Your task to perform on an android device: Open accessibility settings Image 0: 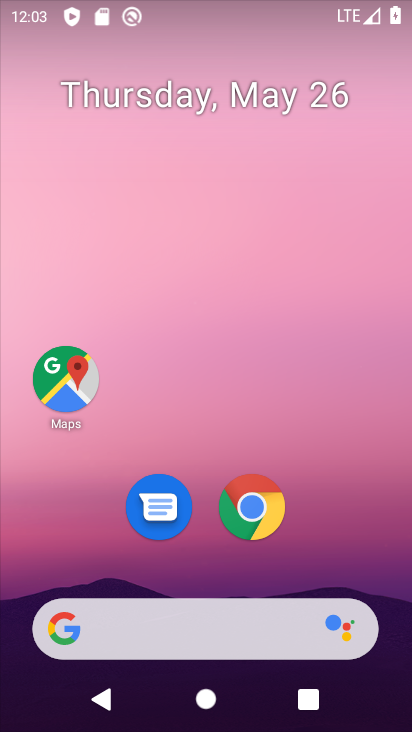
Step 0: drag from (225, 578) to (274, 185)
Your task to perform on an android device: Open accessibility settings Image 1: 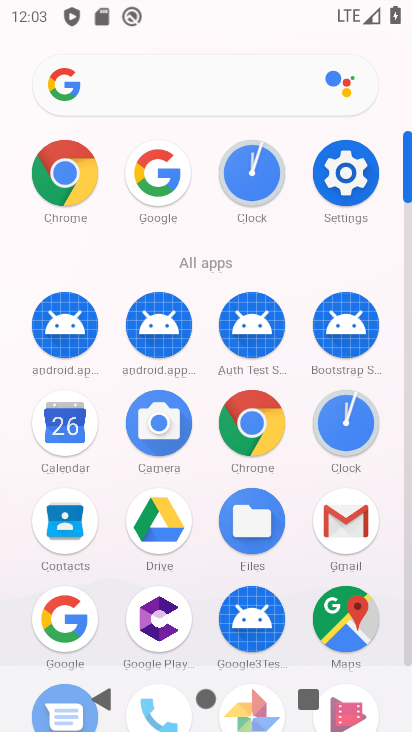
Step 1: click (353, 178)
Your task to perform on an android device: Open accessibility settings Image 2: 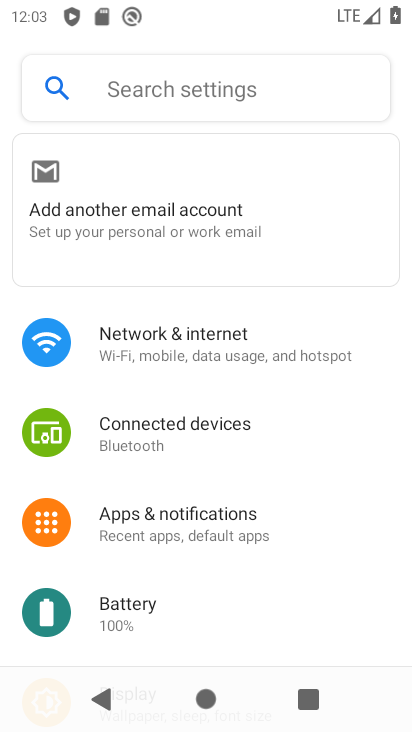
Step 2: drag from (157, 634) to (219, 326)
Your task to perform on an android device: Open accessibility settings Image 3: 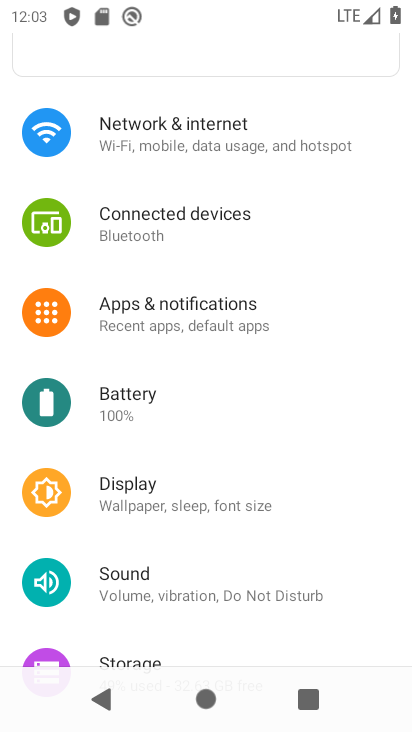
Step 3: drag from (209, 562) to (239, 211)
Your task to perform on an android device: Open accessibility settings Image 4: 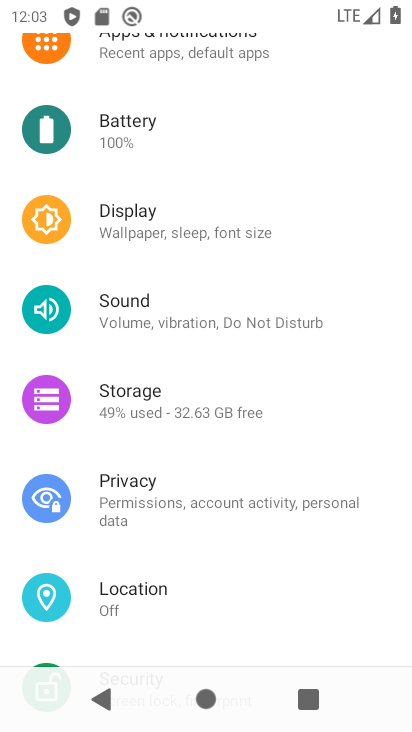
Step 4: drag from (229, 548) to (264, 154)
Your task to perform on an android device: Open accessibility settings Image 5: 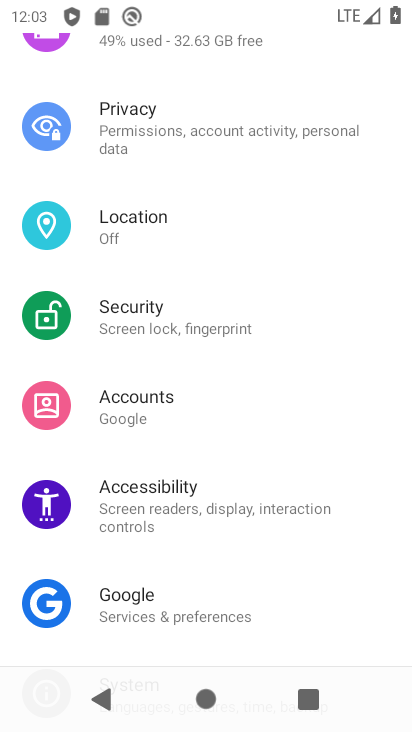
Step 5: click (202, 496)
Your task to perform on an android device: Open accessibility settings Image 6: 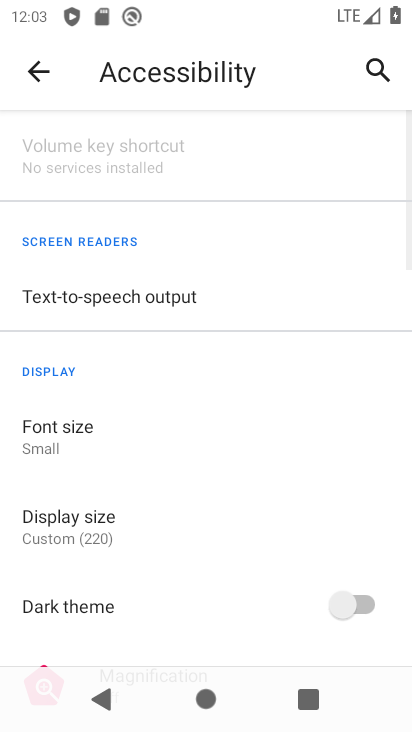
Step 6: task complete